Your task to perform on an android device: check out phone information Image 0: 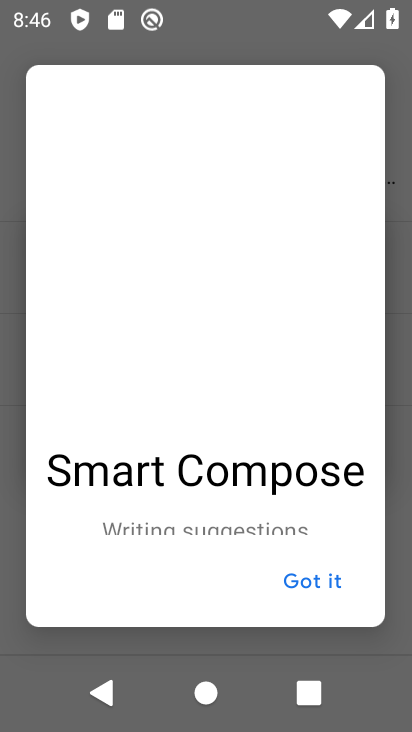
Step 0: press home button
Your task to perform on an android device: check out phone information Image 1: 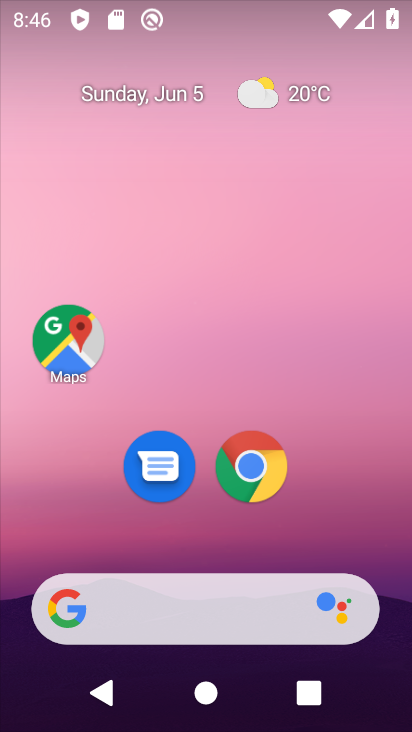
Step 1: drag from (191, 561) to (180, 425)
Your task to perform on an android device: check out phone information Image 2: 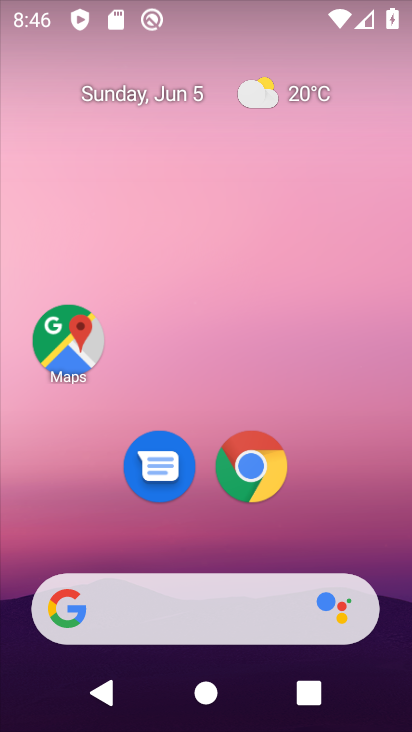
Step 2: drag from (207, 540) to (198, 163)
Your task to perform on an android device: check out phone information Image 3: 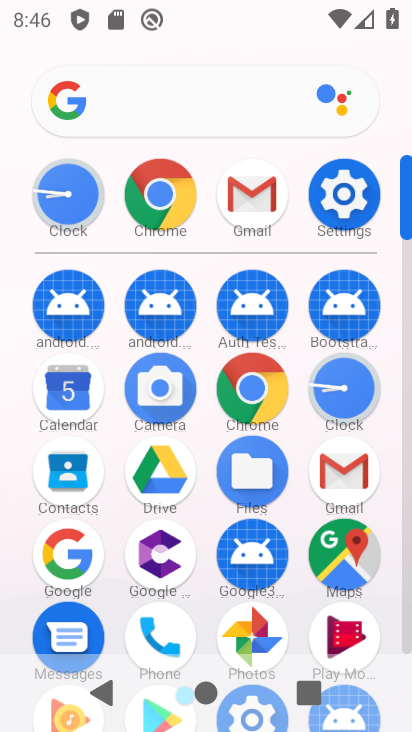
Step 3: click (343, 204)
Your task to perform on an android device: check out phone information Image 4: 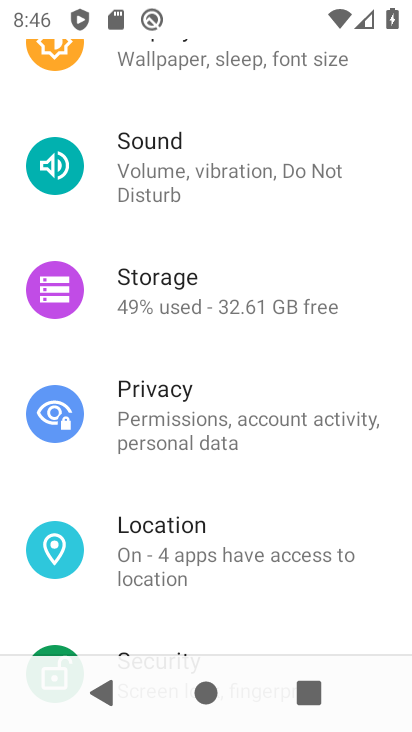
Step 4: drag from (271, 539) to (250, 125)
Your task to perform on an android device: check out phone information Image 5: 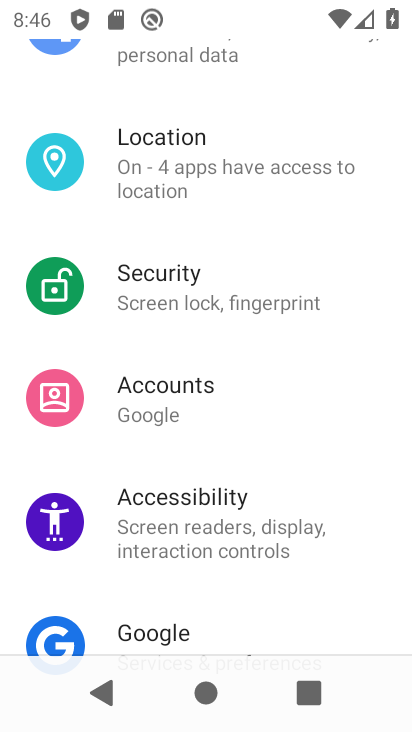
Step 5: drag from (256, 558) to (250, 162)
Your task to perform on an android device: check out phone information Image 6: 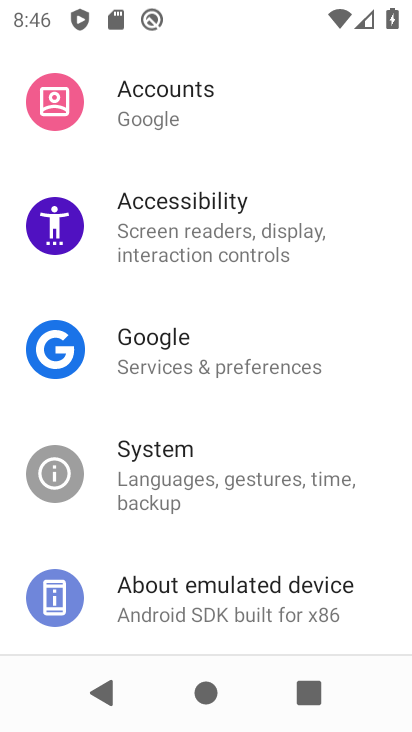
Step 6: drag from (234, 551) to (218, 394)
Your task to perform on an android device: check out phone information Image 7: 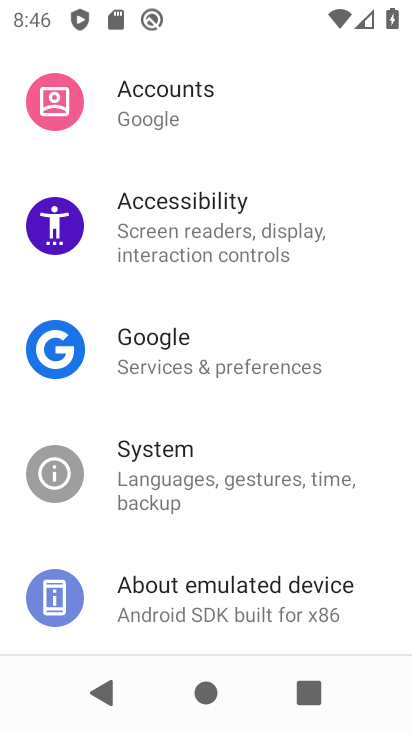
Step 7: click (201, 608)
Your task to perform on an android device: check out phone information Image 8: 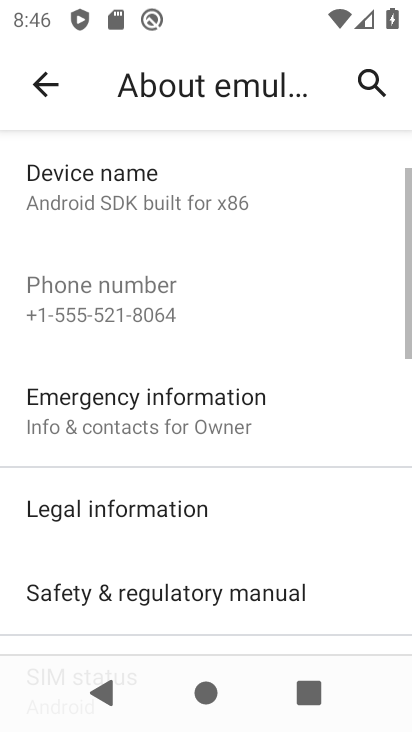
Step 8: task complete